Your task to perform on an android device: Clear the cart on ebay.com. Add bose soundlink to the cart on ebay.com, then select checkout. Image 0: 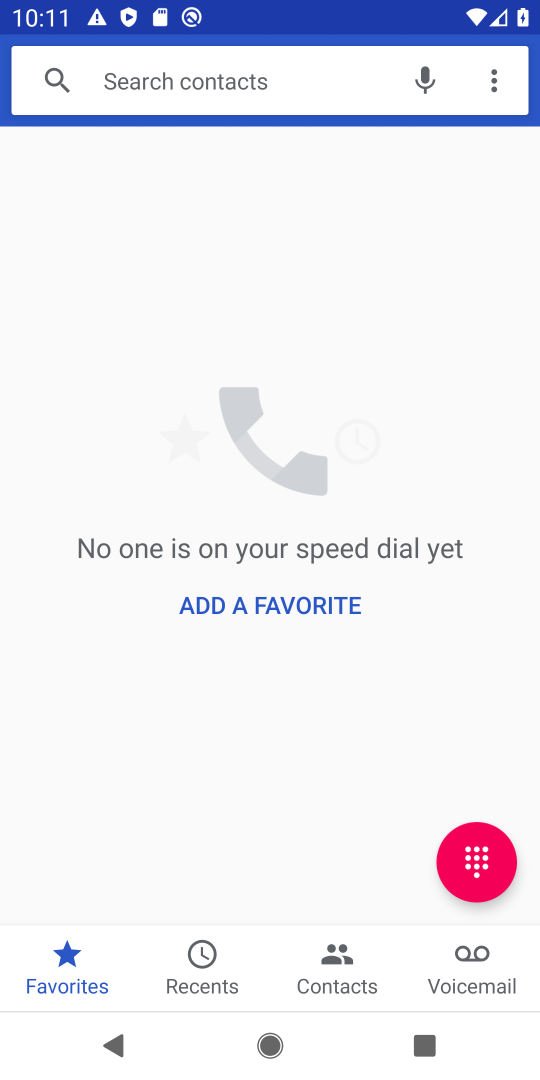
Step 0: press home button
Your task to perform on an android device: Clear the cart on ebay.com. Add bose soundlink to the cart on ebay.com, then select checkout. Image 1: 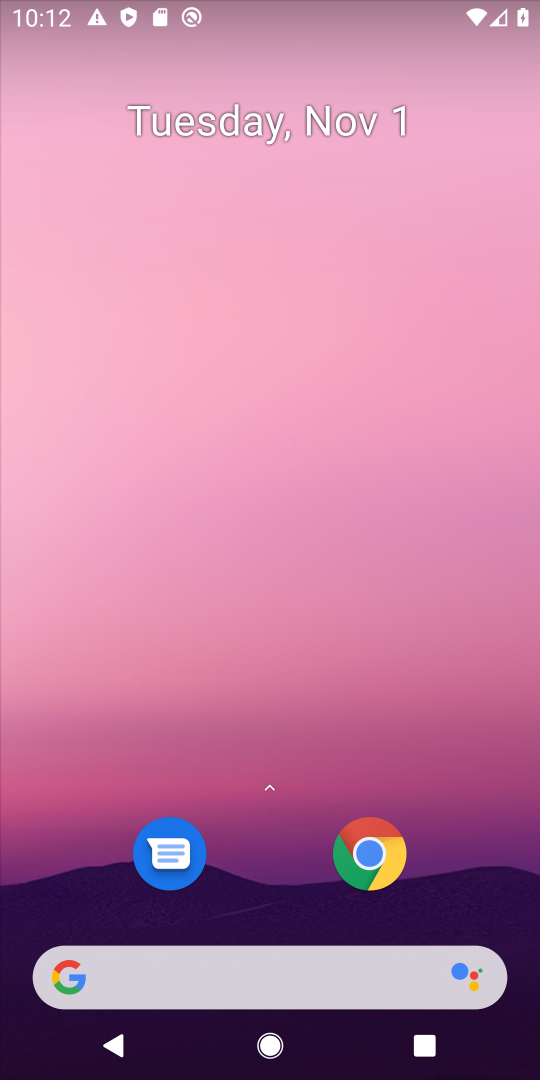
Step 1: click (211, 972)
Your task to perform on an android device: Clear the cart on ebay.com. Add bose soundlink to the cart on ebay.com, then select checkout. Image 2: 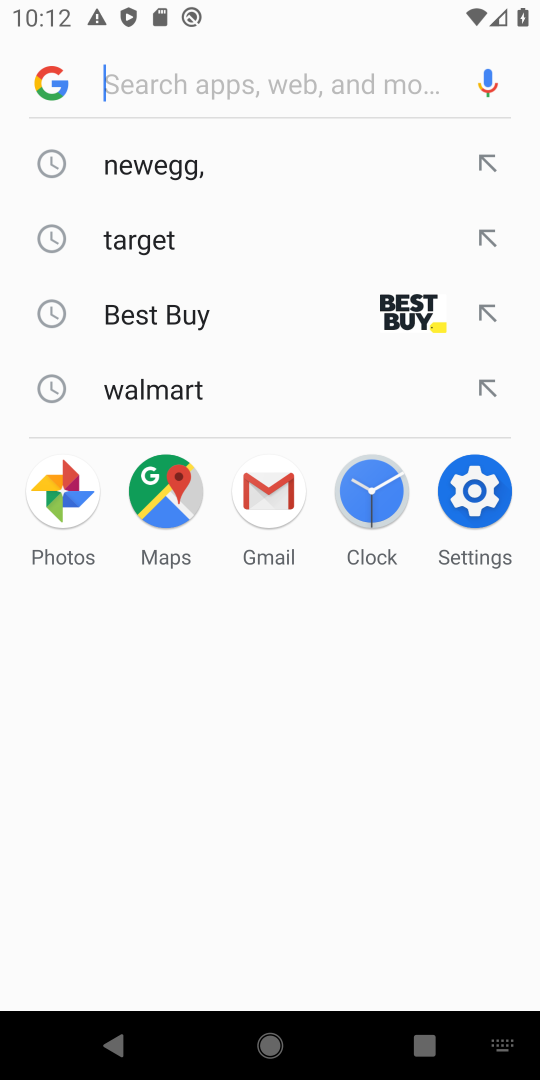
Step 2: type "ebay"
Your task to perform on an android device: Clear the cart on ebay.com. Add bose soundlink to the cart on ebay.com, then select checkout. Image 3: 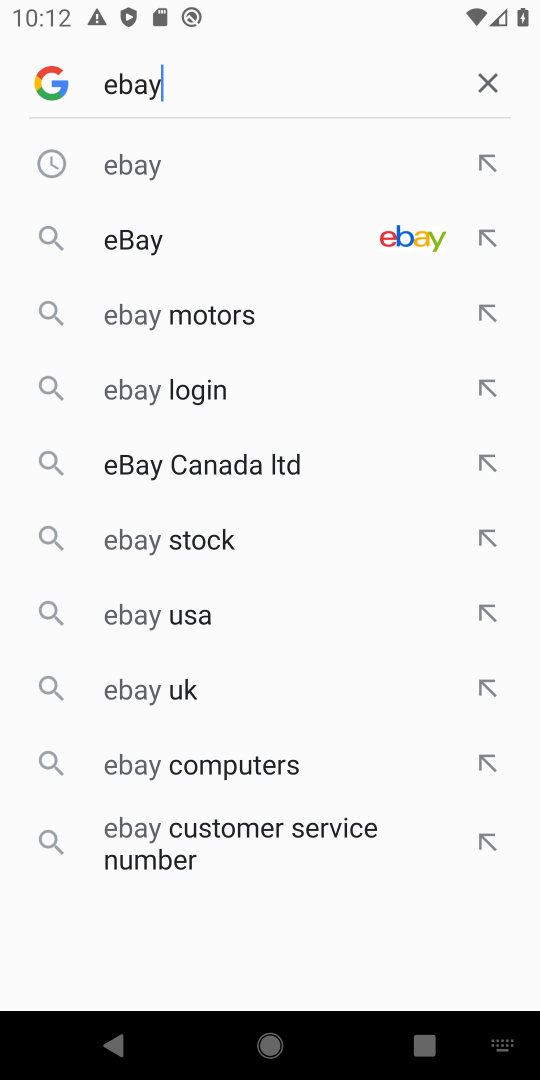
Step 3: click (166, 218)
Your task to perform on an android device: Clear the cart on ebay.com. Add bose soundlink to the cart on ebay.com, then select checkout. Image 4: 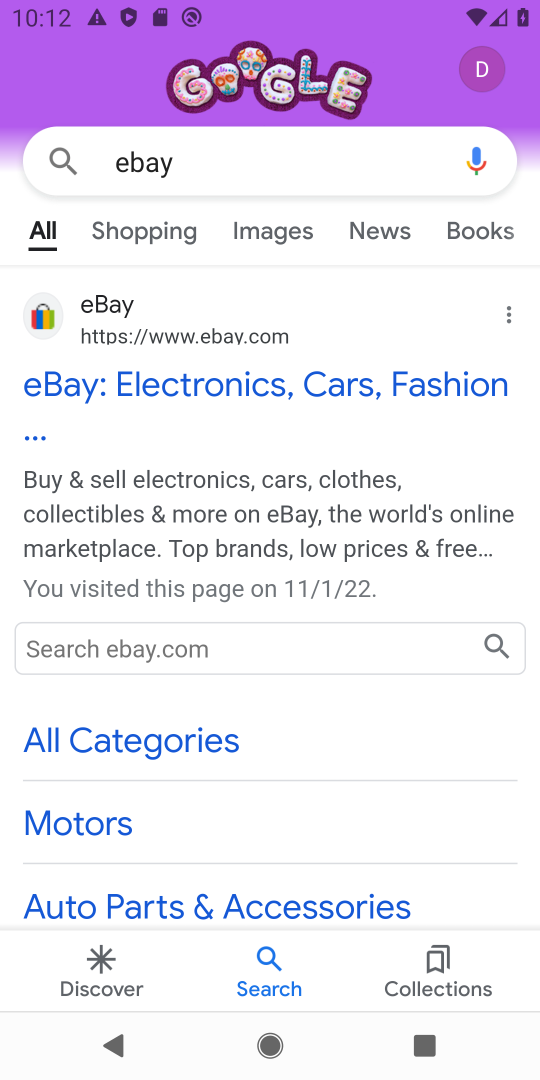
Step 4: click (217, 420)
Your task to perform on an android device: Clear the cart on ebay.com. Add bose soundlink to the cart on ebay.com, then select checkout. Image 5: 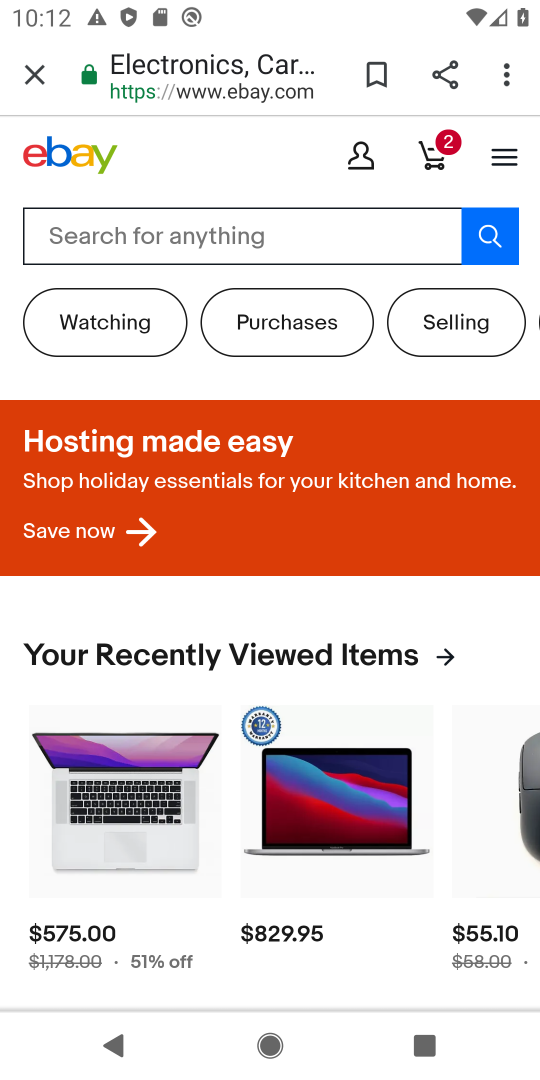
Step 5: click (270, 224)
Your task to perform on an android device: Clear the cart on ebay.com. Add bose soundlink to the cart on ebay.com, then select checkout. Image 6: 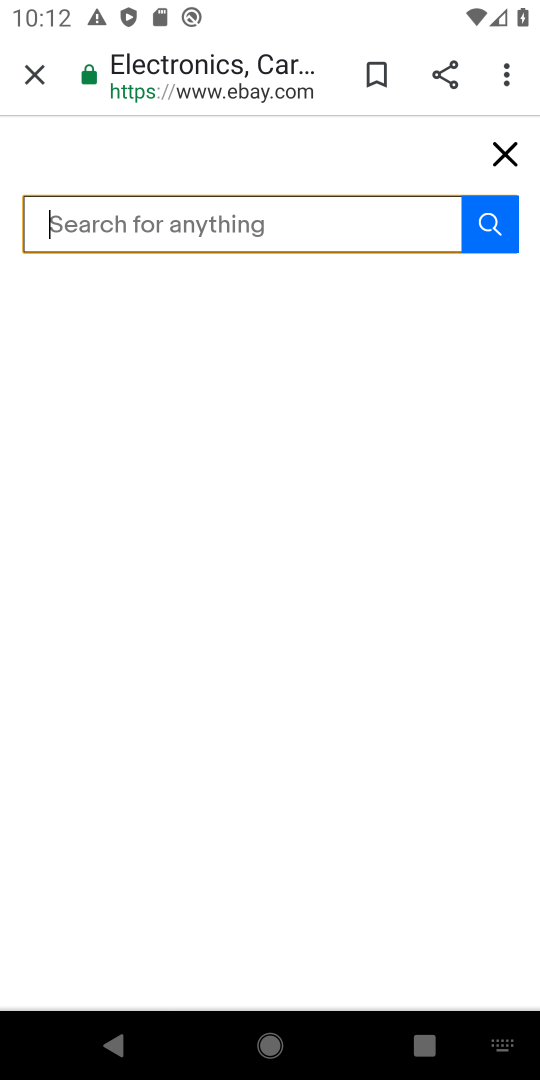
Step 6: type "soundlink"
Your task to perform on an android device: Clear the cart on ebay.com. Add bose soundlink to the cart on ebay.com, then select checkout. Image 7: 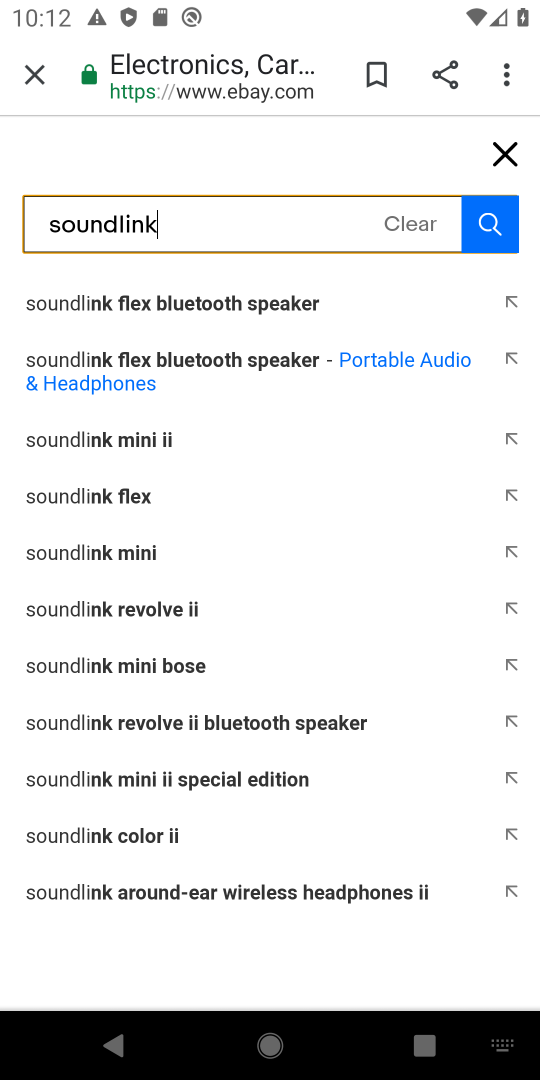
Step 7: click (157, 314)
Your task to perform on an android device: Clear the cart on ebay.com. Add bose soundlink to the cart on ebay.com, then select checkout. Image 8: 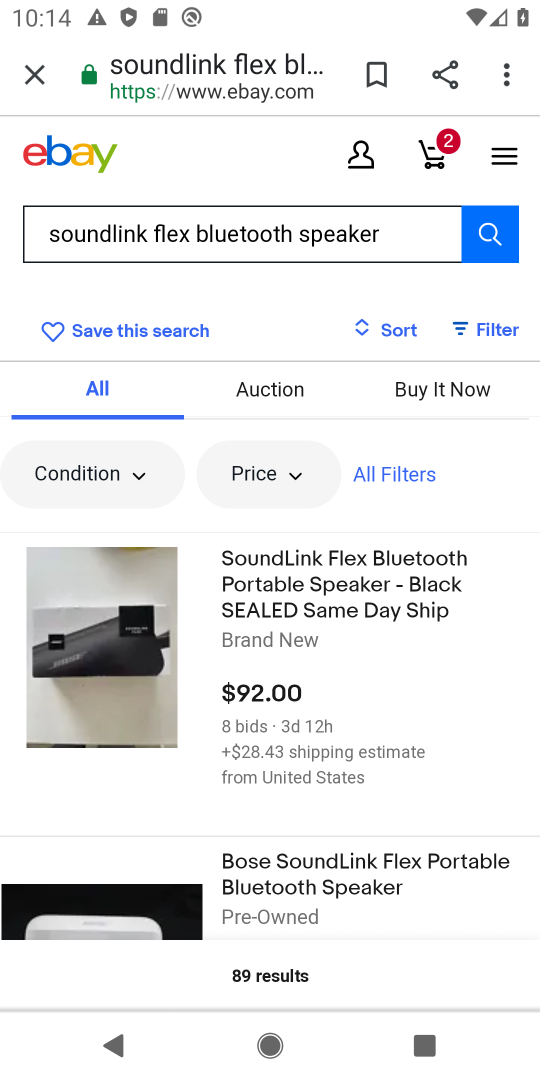
Step 8: task complete